Your task to perform on an android device: Search for sushi restaurants on Maps Image 0: 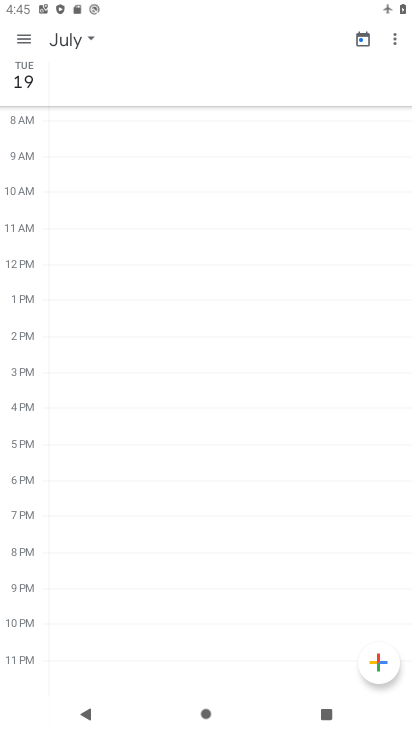
Step 0: press home button
Your task to perform on an android device: Search for sushi restaurants on Maps Image 1: 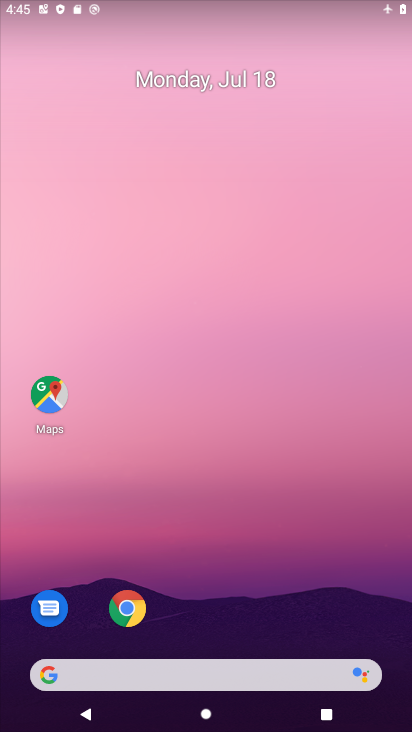
Step 1: drag from (278, 639) to (264, 128)
Your task to perform on an android device: Search for sushi restaurants on Maps Image 2: 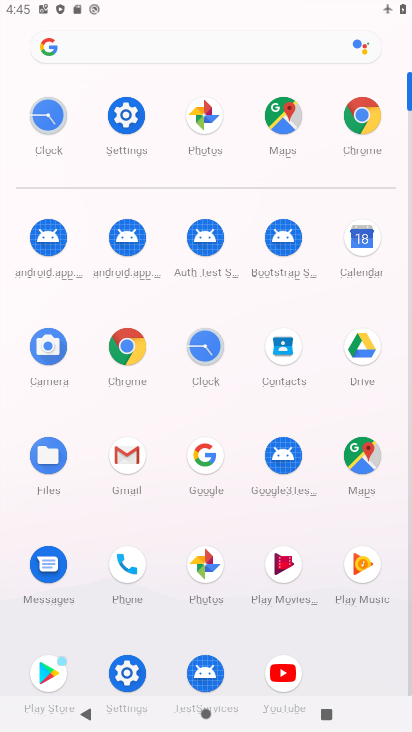
Step 2: click (282, 117)
Your task to perform on an android device: Search for sushi restaurants on Maps Image 3: 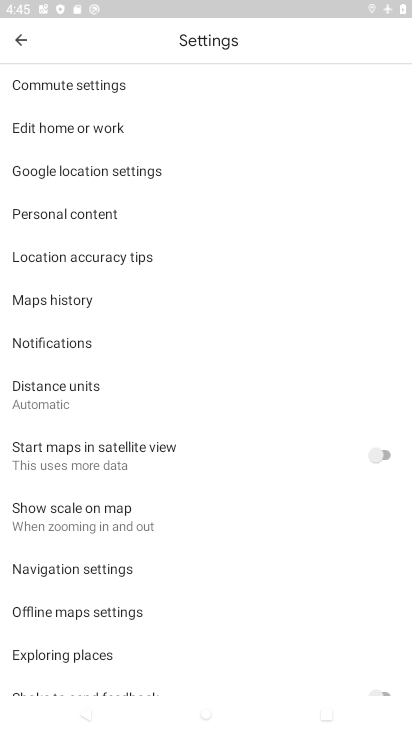
Step 3: click (21, 41)
Your task to perform on an android device: Search for sushi restaurants on Maps Image 4: 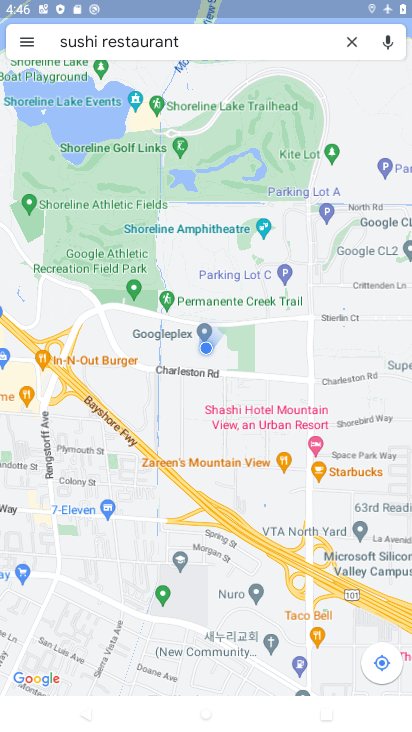
Step 4: click (286, 47)
Your task to perform on an android device: Search for sushi restaurants on Maps Image 5: 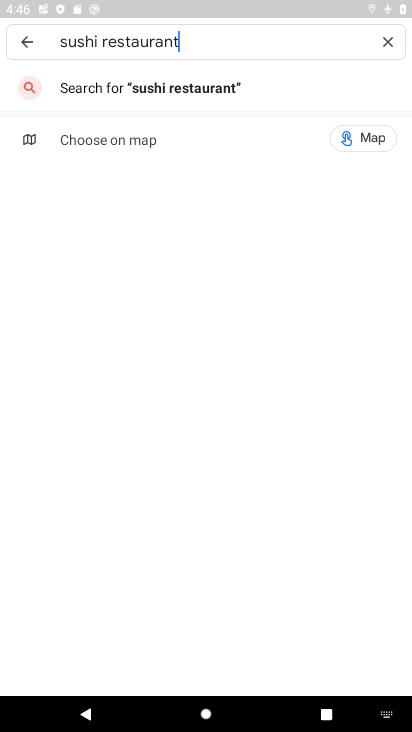
Step 5: press enter
Your task to perform on an android device: Search for sushi restaurants on Maps Image 6: 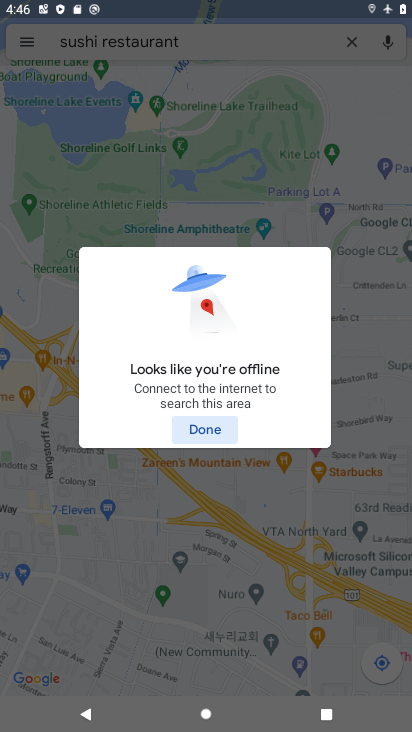
Step 6: task complete